Your task to perform on an android device: Open calendar and show me the first week of next month Image 0: 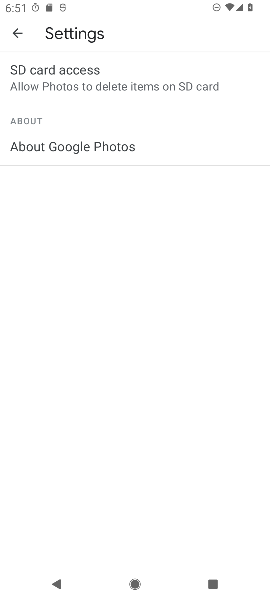
Step 0: press home button
Your task to perform on an android device: Open calendar and show me the first week of next month Image 1: 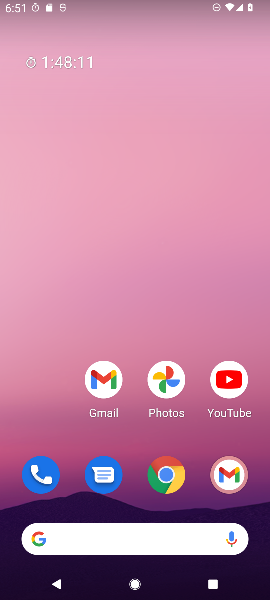
Step 1: drag from (56, 383) to (58, 124)
Your task to perform on an android device: Open calendar and show me the first week of next month Image 2: 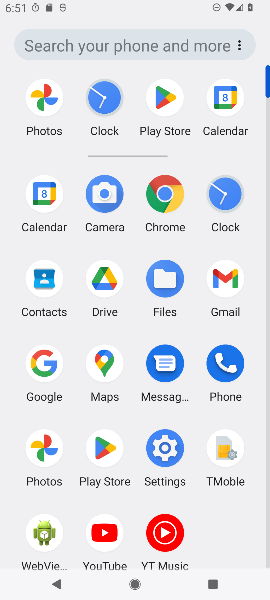
Step 2: click (38, 193)
Your task to perform on an android device: Open calendar and show me the first week of next month Image 3: 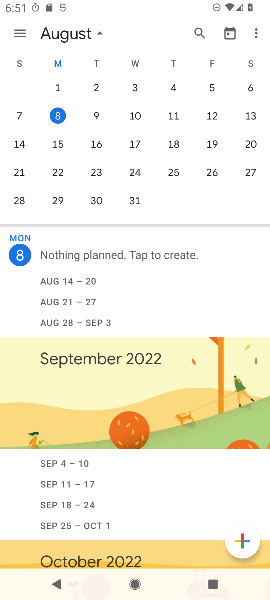
Step 3: task complete